Your task to perform on an android device: Show me popular videos on Youtube Image 0: 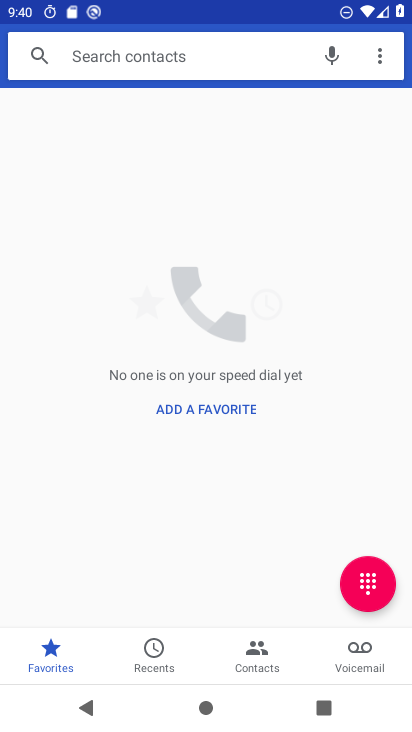
Step 0: press home button
Your task to perform on an android device: Show me popular videos on Youtube Image 1: 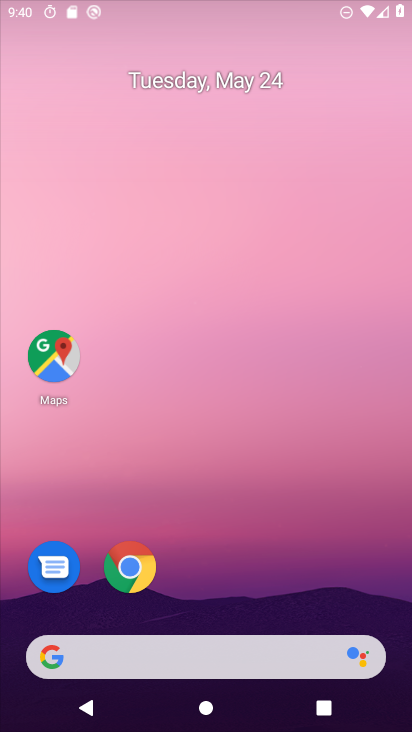
Step 1: drag from (235, 462) to (309, 131)
Your task to perform on an android device: Show me popular videos on Youtube Image 2: 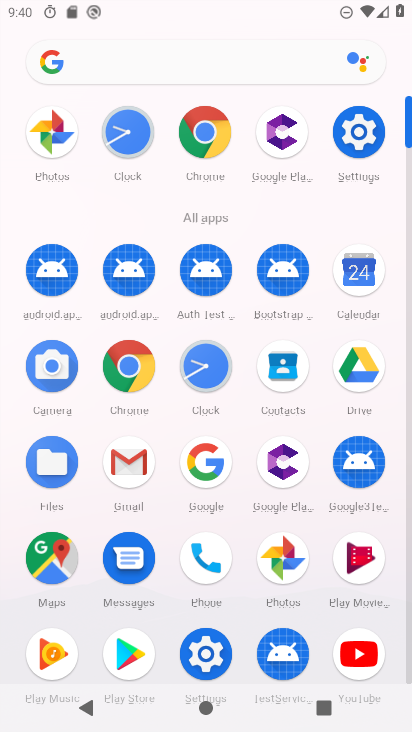
Step 2: click (350, 640)
Your task to perform on an android device: Show me popular videos on Youtube Image 3: 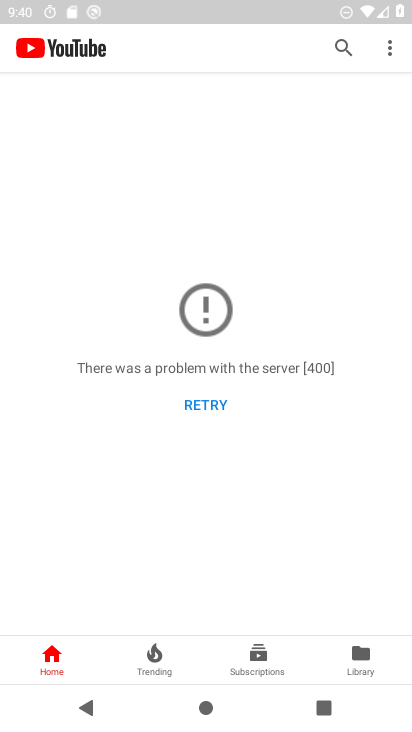
Step 3: click (361, 683)
Your task to perform on an android device: Show me popular videos on Youtube Image 4: 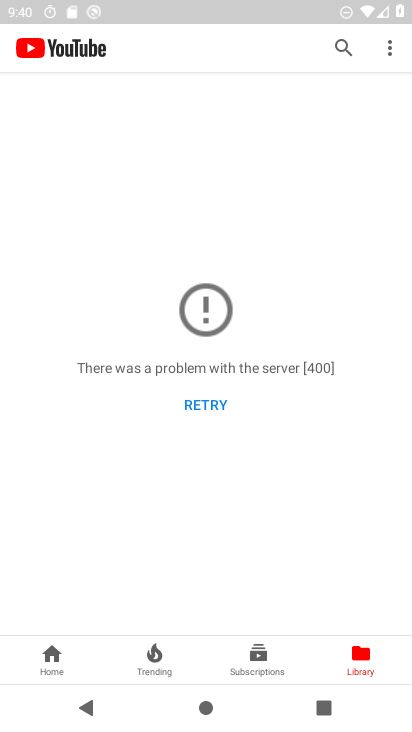
Step 4: task complete